Your task to perform on an android device: uninstall "Walmart Shopping & Grocery" Image 0: 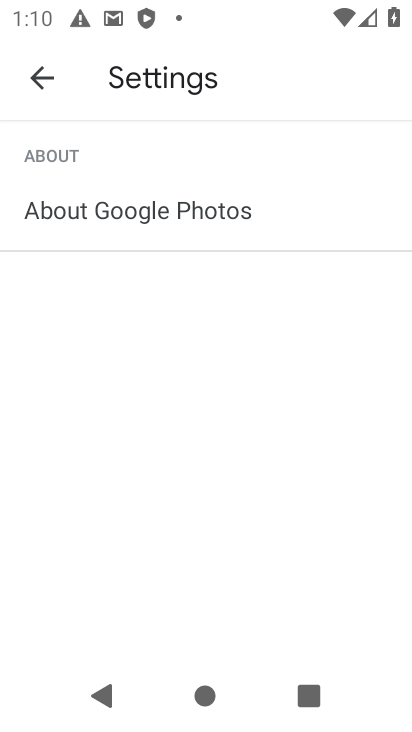
Step 0: press home button
Your task to perform on an android device: uninstall "Walmart Shopping & Grocery" Image 1: 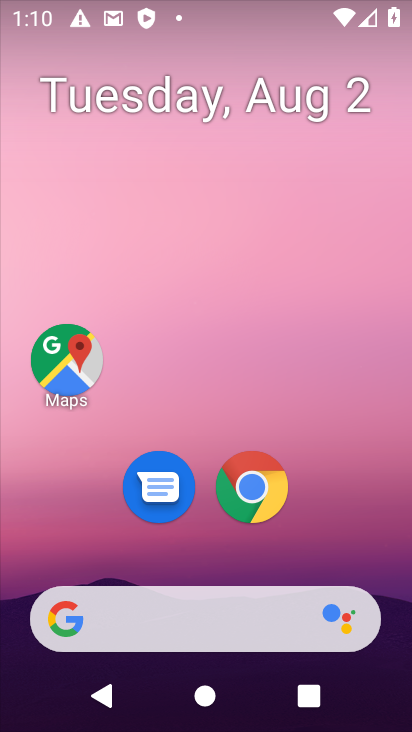
Step 1: drag from (198, 543) to (207, 62)
Your task to perform on an android device: uninstall "Walmart Shopping & Grocery" Image 2: 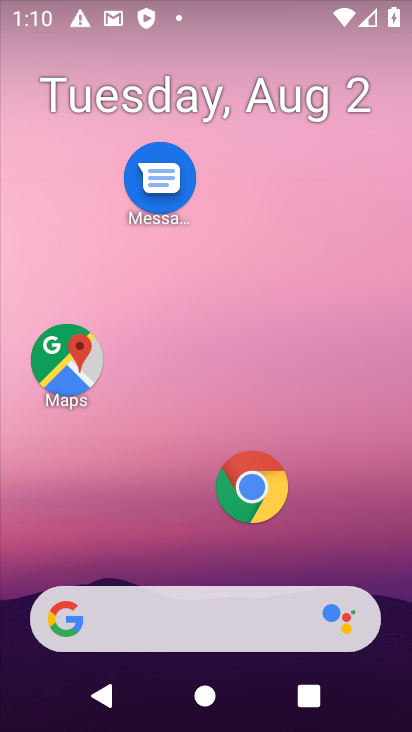
Step 2: drag from (189, 520) to (216, 43)
Your task to perform on an android device: uninstall "Walmart Shopping & Grocery" Image 3: 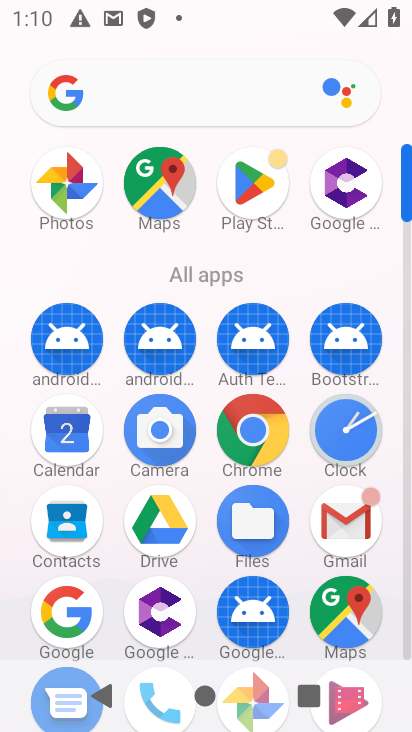
Step 3: click (251, 195)
Your task to perform on an android device: uninstall "Walmart Shopping & Grocery" Image 4: 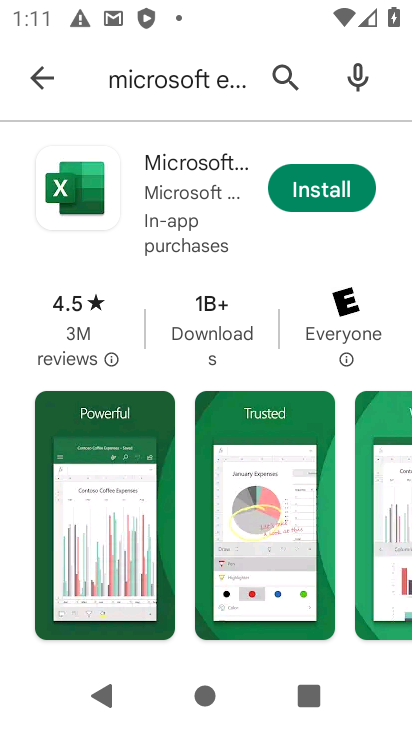
Step 4: click (327, 79)
Your task to perform on an android device: uninstall "Walmart Shopping & Grocery" Image 5: 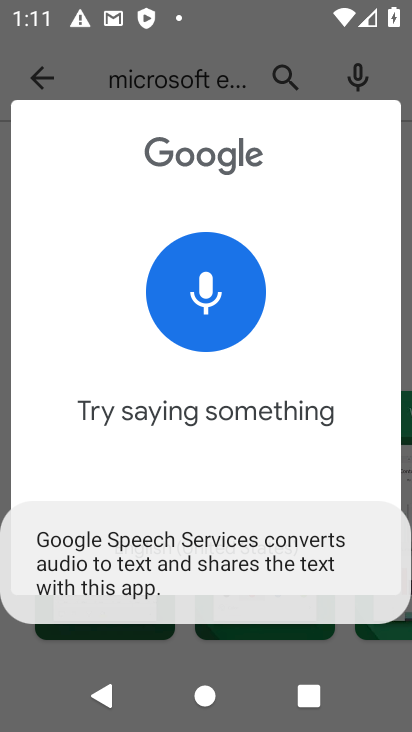
Step 5: click (284, 79)
Your task to perform on an android device: uninstall "Walmart Shopping & Grocery" Image 6: 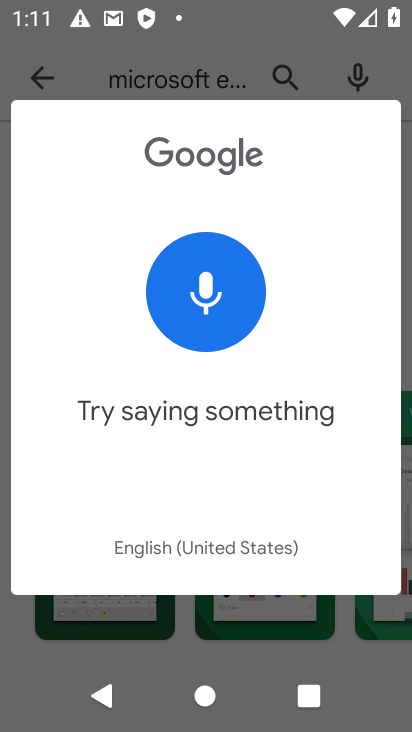
Step 6: click (291, 68)
Your task to perform on an android device: uninstall "Walmart Shopping & Grocery" Image 7: 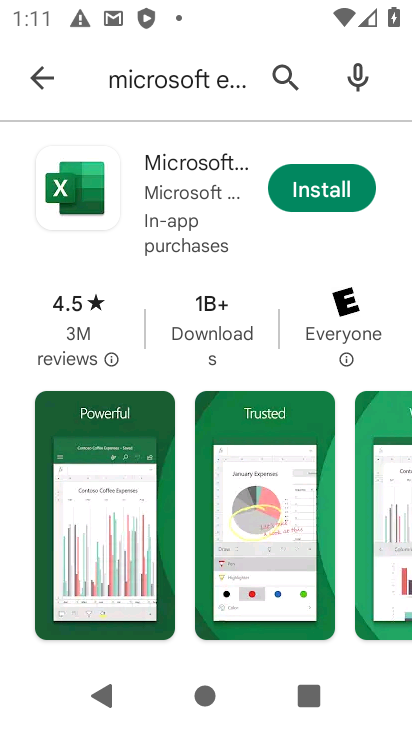
Step 7: click (288, 69)
Your task to perform on an android device: uninstall "Walmart Shopping & Grocery" Image 8: 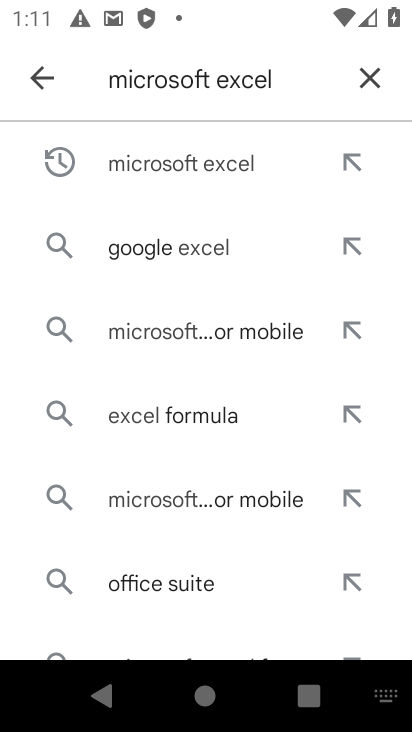
Step 8: click (382, 74)
Your task to perform on an android device: uninstall "Walmart Shopping & Grocery" Image 9: 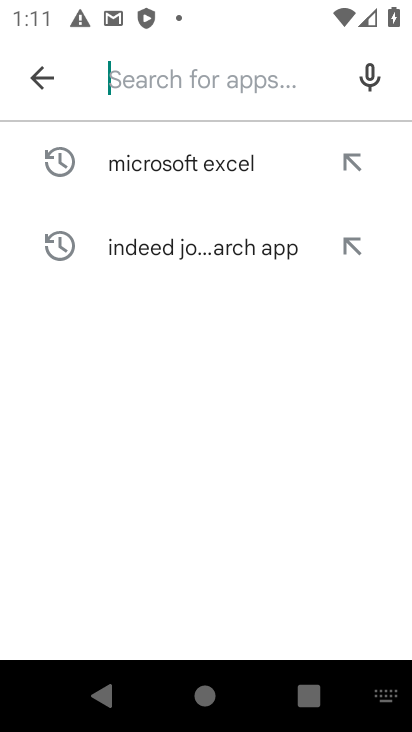
Step 9: type "Walmart Shopping & Grocery"
Your task to perform on an android device: uninstall "Walmart Shopping & Grocery" Image 10: 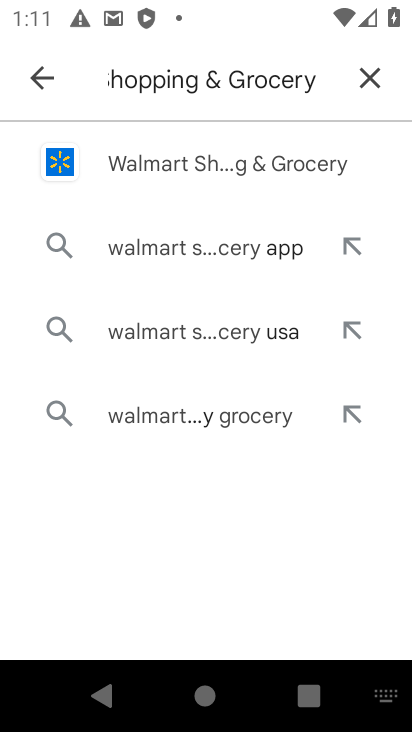
Step 10: click (179, 179)
Your task to perform on an android device: uninstall "Walmart Shopping & Grocery" Image 11: 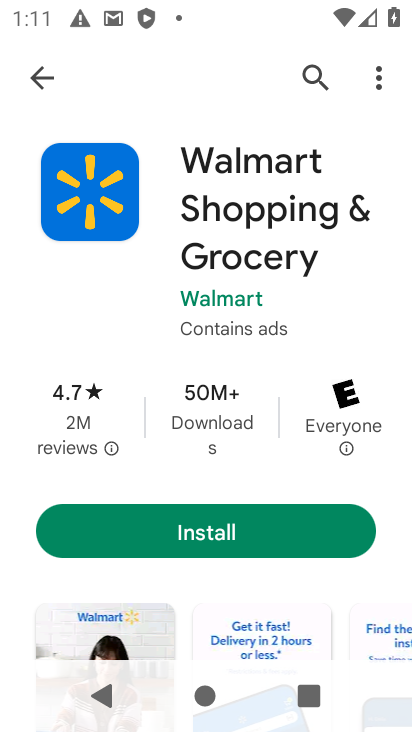
Step 11: task complete